Your task to perform on an android device: Open Google Chrome and click the shortcut for Amazon.com Image 0: 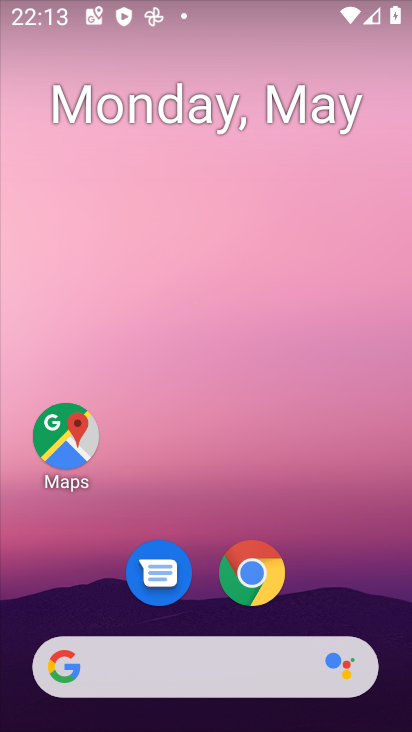
Step 0: task complete